Your task to perform on an android device: Open Google Chrome and open the bookmarks view Image 0: 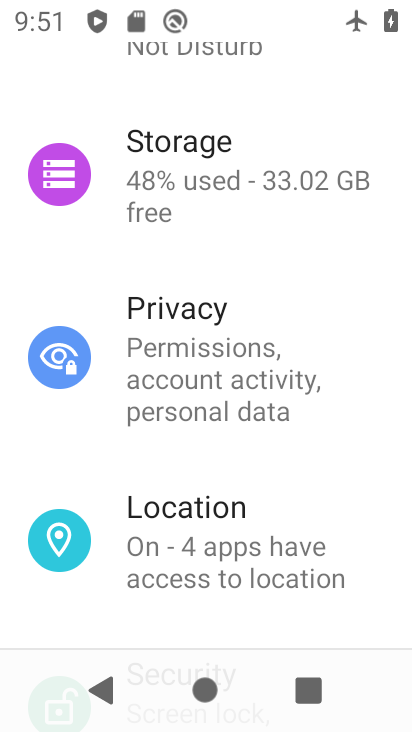
Step 0: press home button
Your task to perform on an android device: Open Google Chrome and open the bookmarks view Image 1: 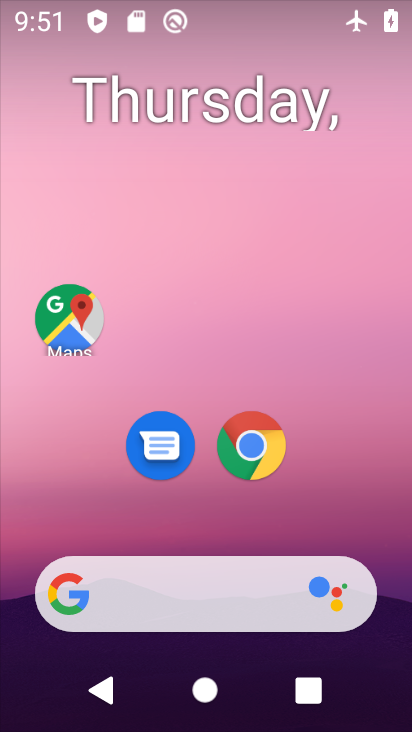
Step 1: drag from (368, 513) to (324, 176)
Your task to perform on an android device: Open Google Chrome and open the bookmarks view Image 2: 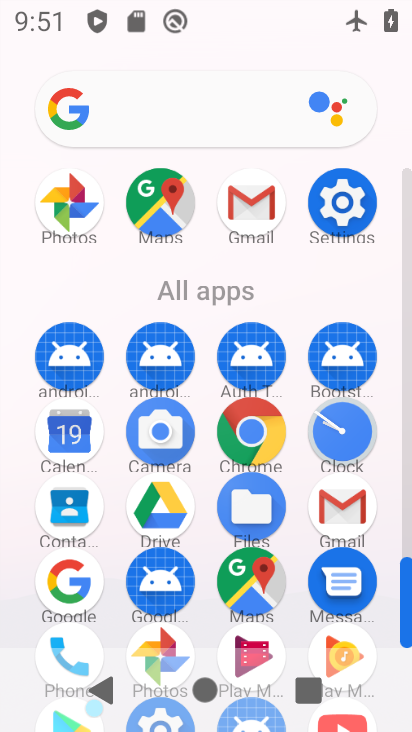
Step 2: click (263, 436)
Your task to perform on an android device: Open Google Chrome and open the bookmarks view Image 3: 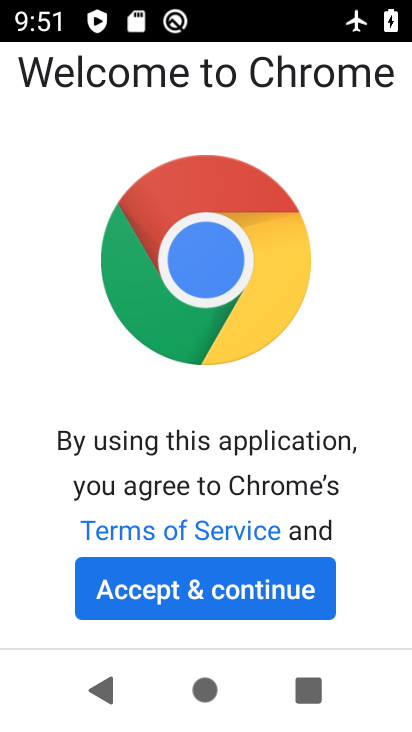
Step 3: click (247, 589)
Your task to perform on an android device: Open Google Chrome and open the bookmarks view Image 4: 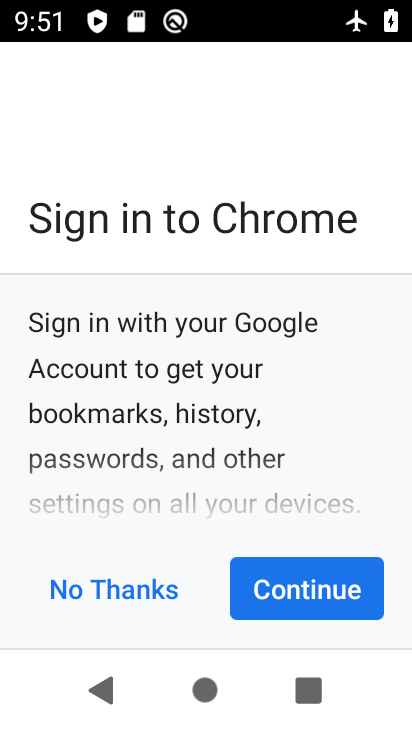
Step 4: click (282, 607)
Your task to perform on an android device: Open Google Chrome and open the bookmarks view Image 5: 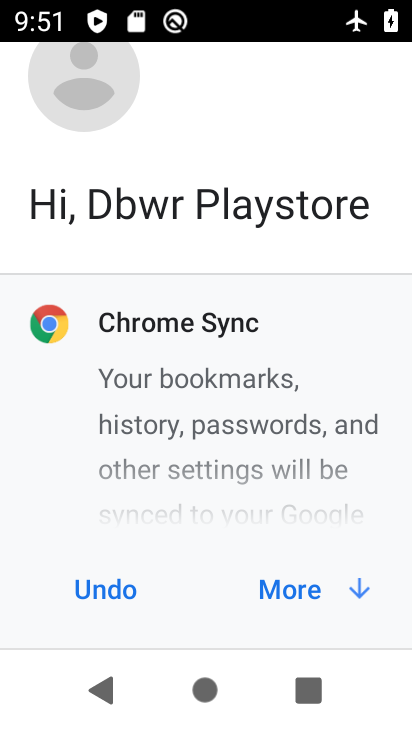
Step 5: click (279, 596)
Your task to perform on an android device: Open Google Chrome and open the bookmarks view Image 6: 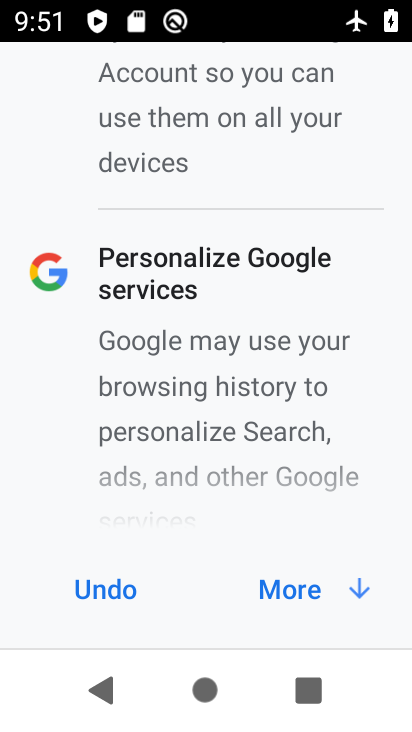
Step 6: click (279, 596)
Your task to perform on an android device: Open Google Chrome and open the bookmarks view Image 7: 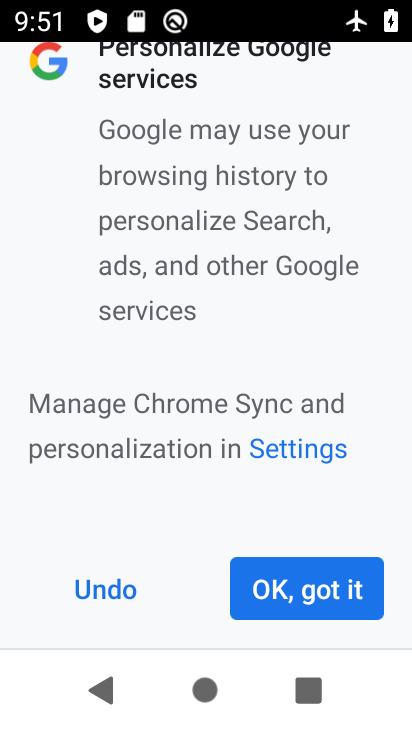
Step 7: click (279, 595)
Your task to perform on an android device: Open Google Chrome and open the bookmarks view Image 8: 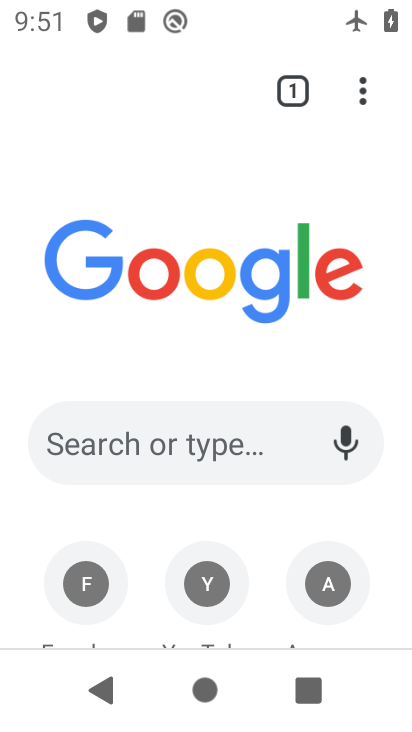
Step 8: task complete